Your task to perform on an android device: delete browsing data in the chrome app Image 0: 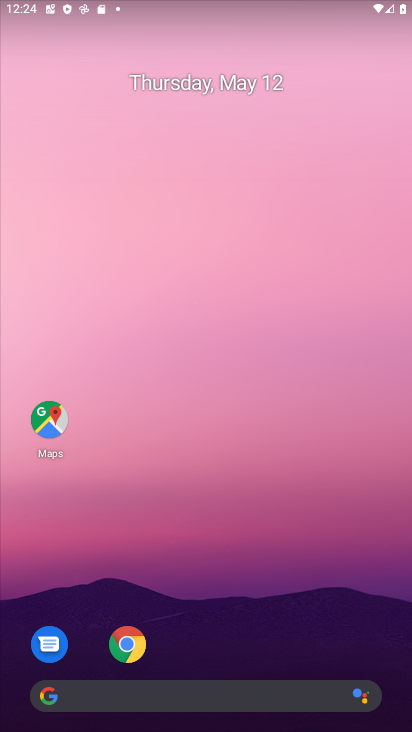
Step 0: click (139, 647)
Your task to perform on an android device: delete browsing data in the chrome app Image 1: 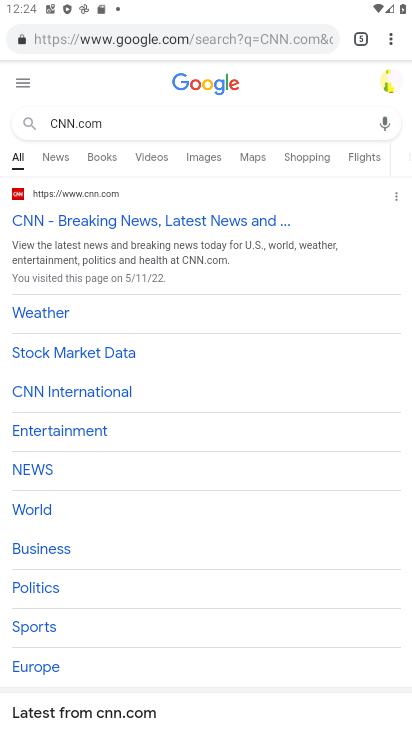
Step 1: click (384, 36)
Your task to perform on an android device: delete browsing data in the chrome app Image 2: 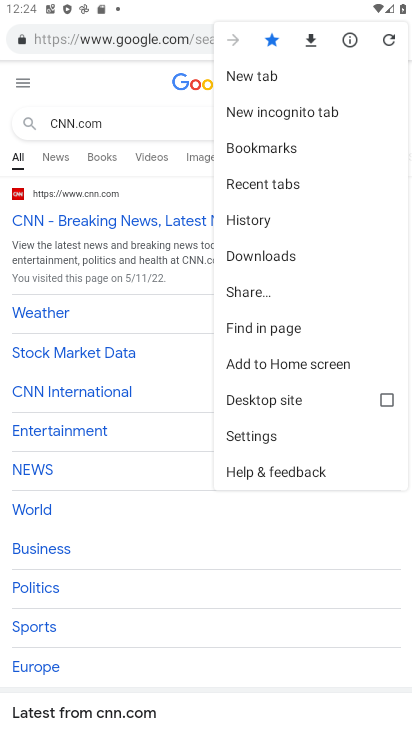
Step 2: click (285, 436)
Your task to perform on an android device: delete browsing data in the chrome app Image 3: 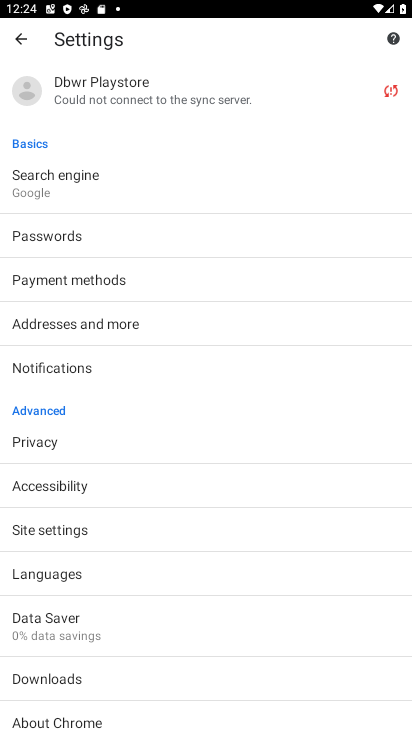
Step 3: click (25, 30)
Your task to perform on an android device: delete browsing data in the chrome app Image 4: 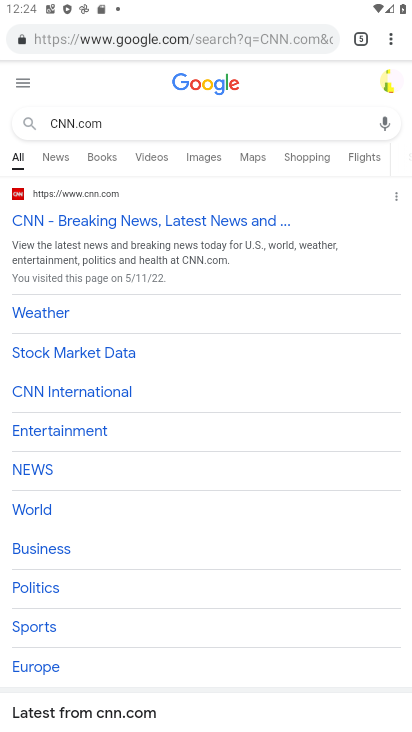
Step 4: click (392, 53)
Your task to perform on an android device: delete browsing data in the chrome app Image 5: 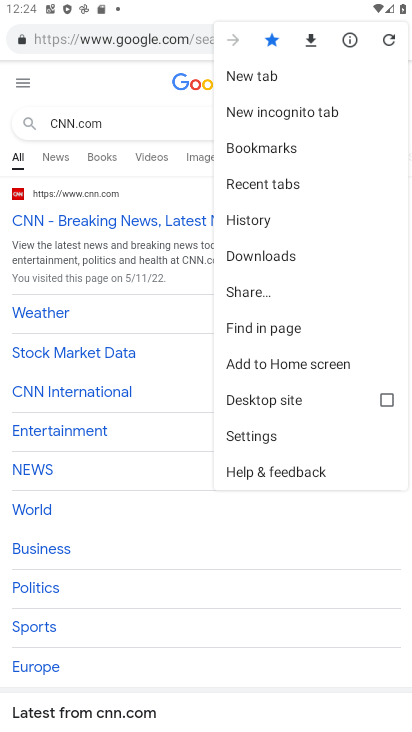
Step 5: click (318, 217)
Your task to perform on an android device: delete browsing data in the chrome app Image 6: 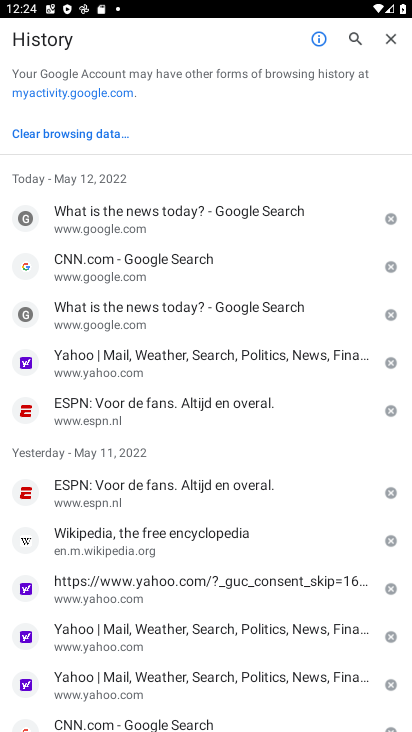
Step 6: click (99, 133)
Your task to perform on an android device: delete browsing data in the chrome app Image 7: 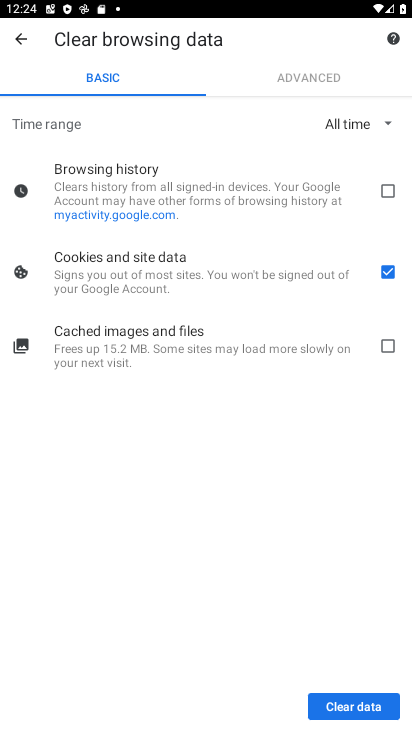
Step 7: click (370, 697)
Your task to perform on an android device: delete browsing data in the chrome app Image 8: 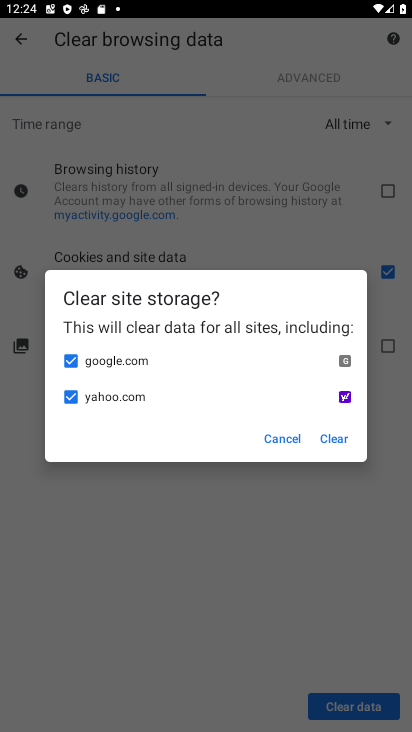
Step 8: click (290, 440)
Your task to perform on an android device: delete browsing data in the chrome app Image 9: 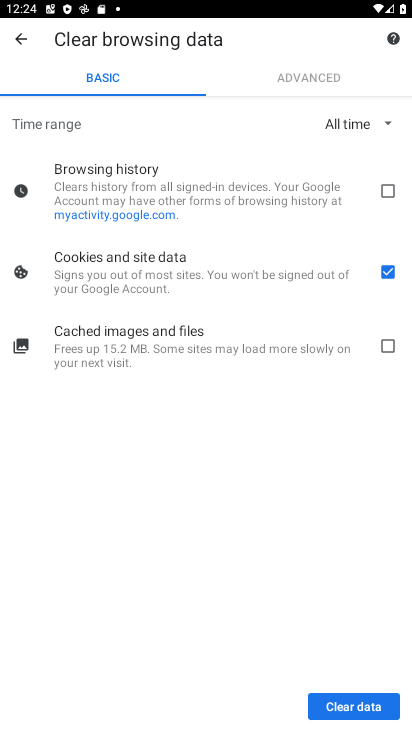
Step 9: click (384, 196)
Your task to perform on an android device: delete browsing data in the chrome app Image 10: 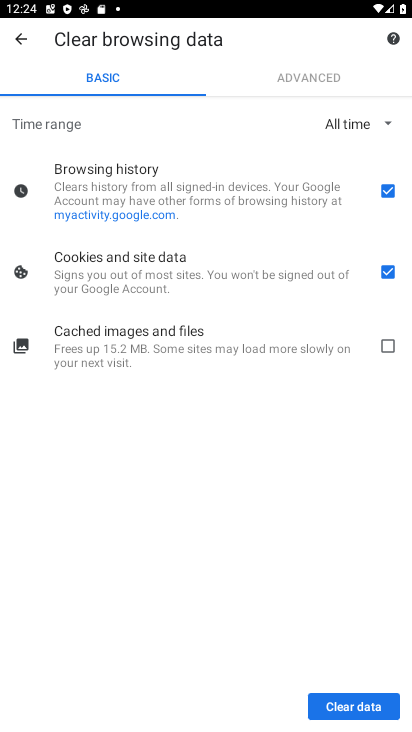
Step 10: click (384, 275)
Your task to perform on an android device: delete browsing data in the chrome app Image 11: 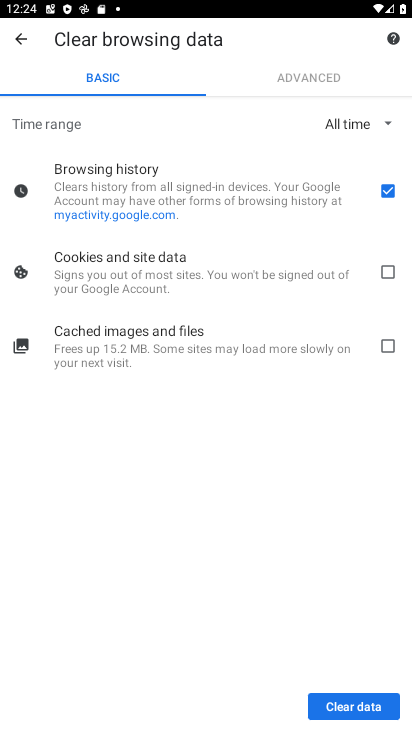
Step 11: click (347, 700)
Your task to perform on an android device: delete browsing data in the chrome app Image 12: 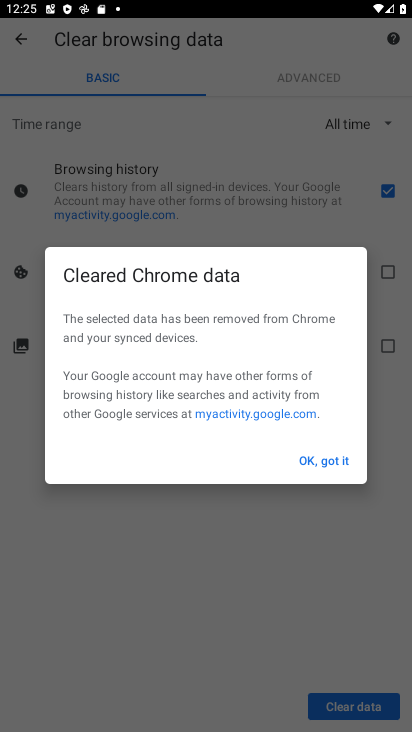
Step 12: click (319, 459)
Your task to perform on an android device: delete browsing data in the chrome app Image 13: 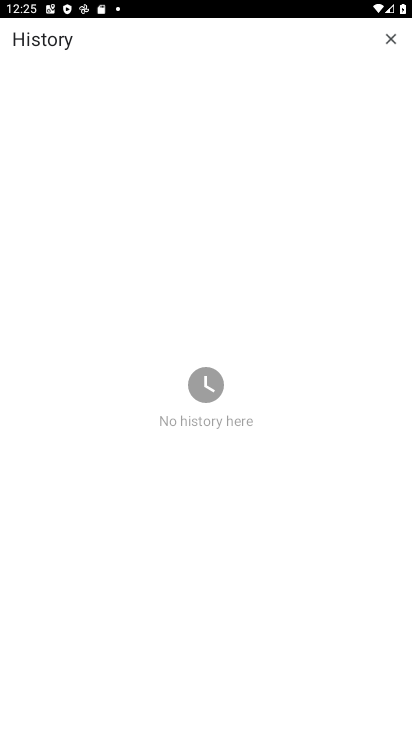
Step 13: task complete